Your task to perform on an android device: Open Chrome and go to settings Image 0: 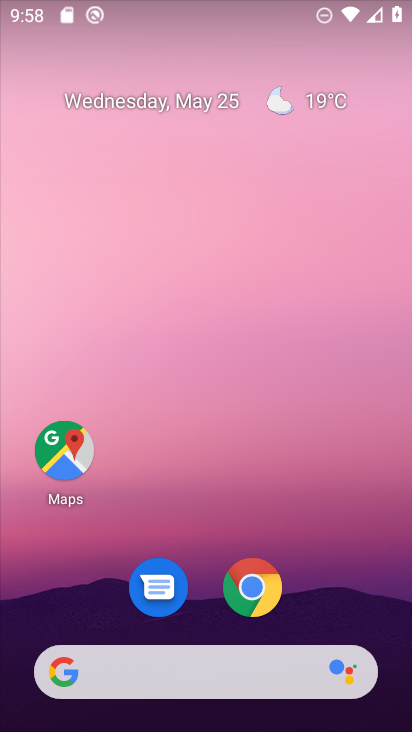
Step 0: click (252, 585)
Your task to perform on an android device: Open Chrome and go to settings Image 1: 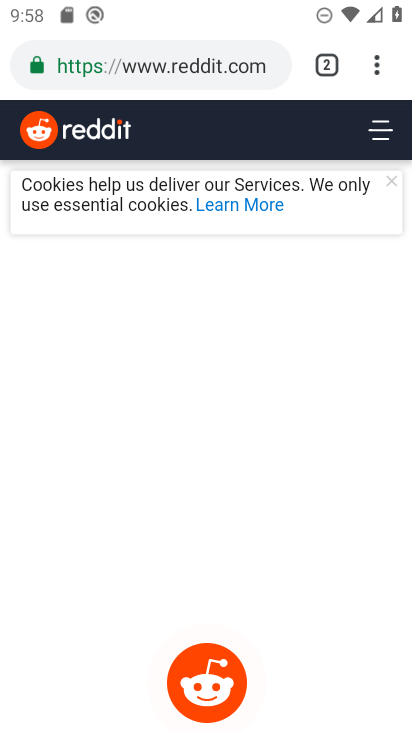
Step 1: click (370, 71)
Your task to perform on an android device: Open Chrome and go to settings Image 2: 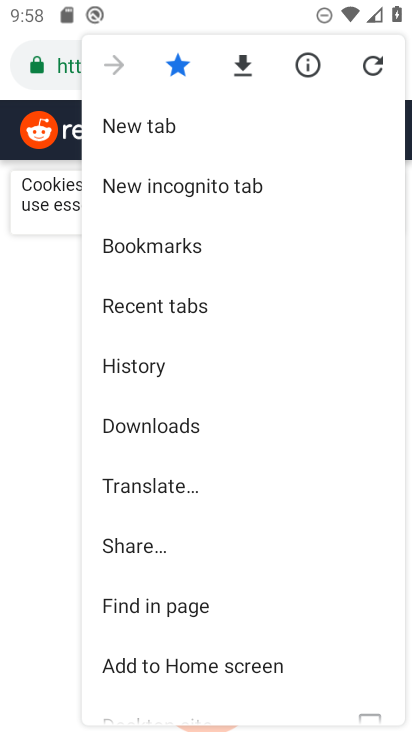
Step 2: drag from (276, 619) to (248, 209)
Your task to perform on an android device: Open Chrome and go to settings Image 3: 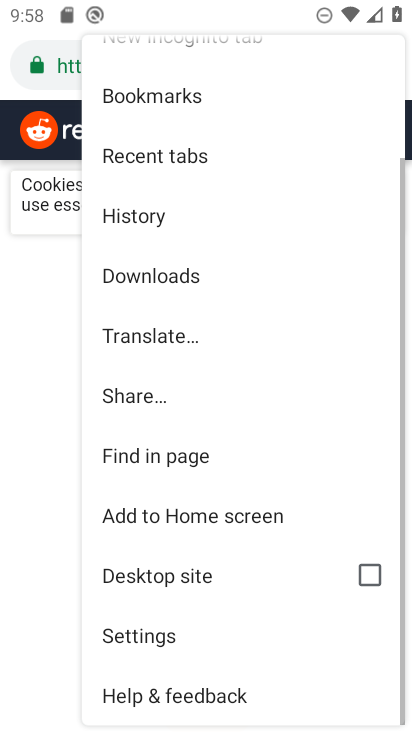
Step 3: click (145, 622)
Your task to perform on an android device: Open Chrome and go to settings Image 4: 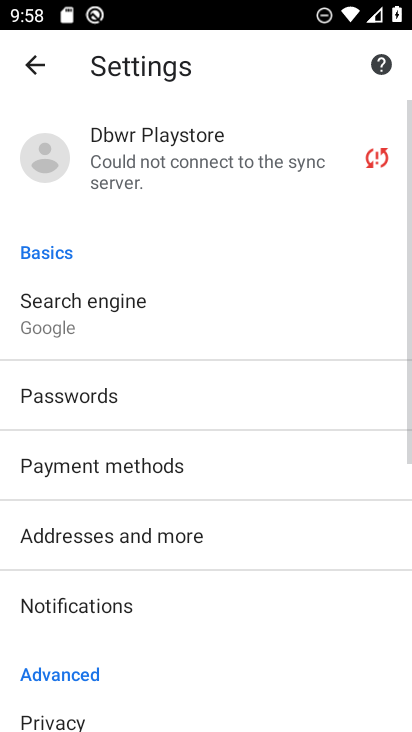
Step 4: task complete